Your task to perform on an android device: Go to Google Image 0: 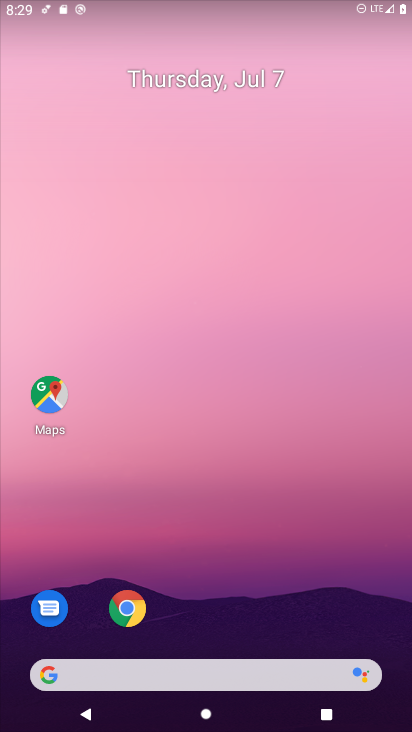
Step 0: click (126, 602)
Your task to perform on an android device: Go to Google Image 1: 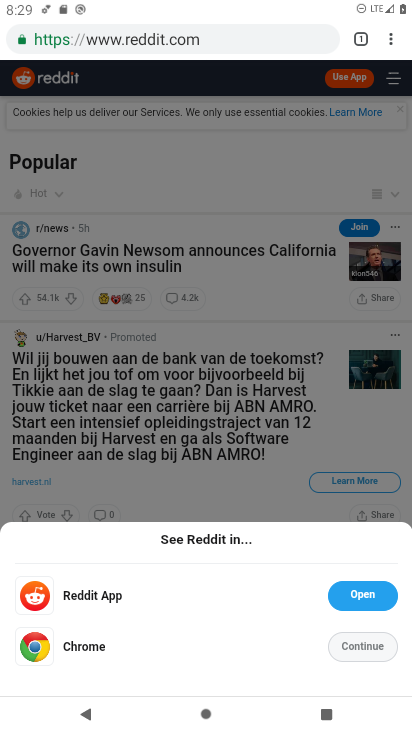
Step 1: click (277, 191)
Your task to perform on an android device: Go to Google Image 2: 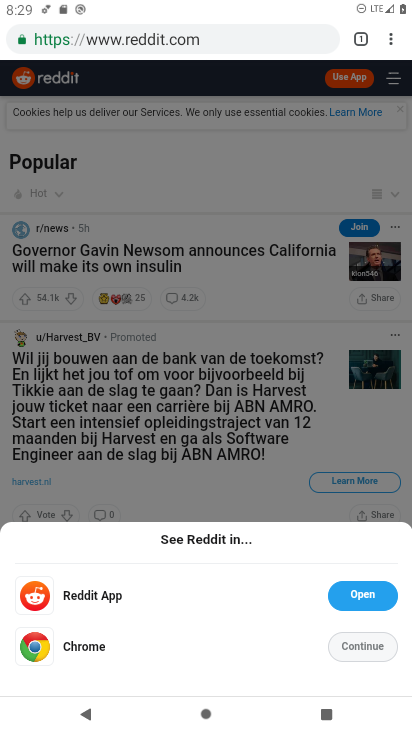
Step 2: task complete